Your task to perform on an android device: turn off priority inbox in the gmail app Image 0: 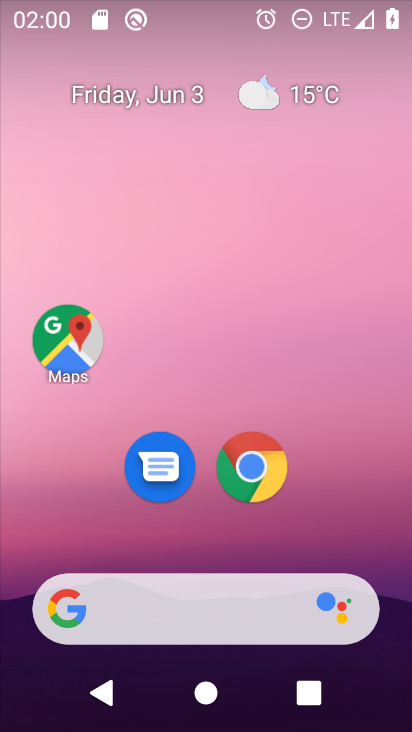
Step 0: drag from (396, 629) to (335, 18)
Your task to perform on an android device: turn off priority inbox in the gmail app Image 1: 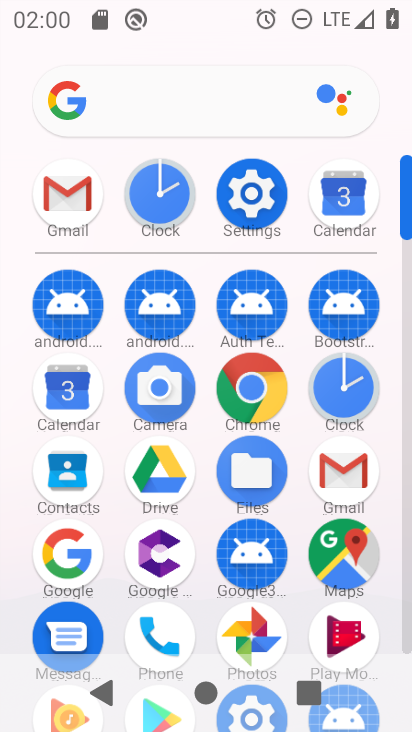
Step 1: click (409, 611)
Your task to perform on an android device: turn off priority inbox in the gmail app Image 2: 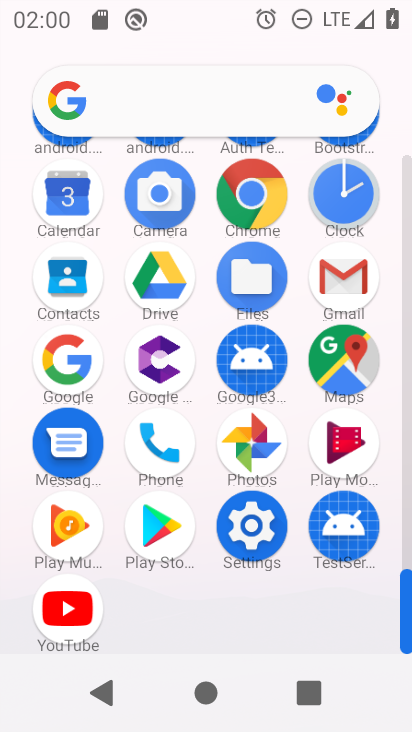
Step 2: click (340, 275)
Your task to perform on an android device: turn off priority inbox in the gmail app Image 3: 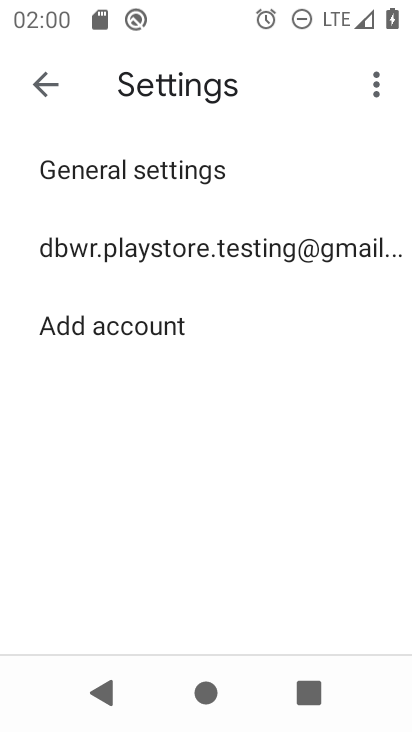
Step 3: click (144, 241)
Your task to perform on an android device: turn off priority inbox in the gmail app Image 4: 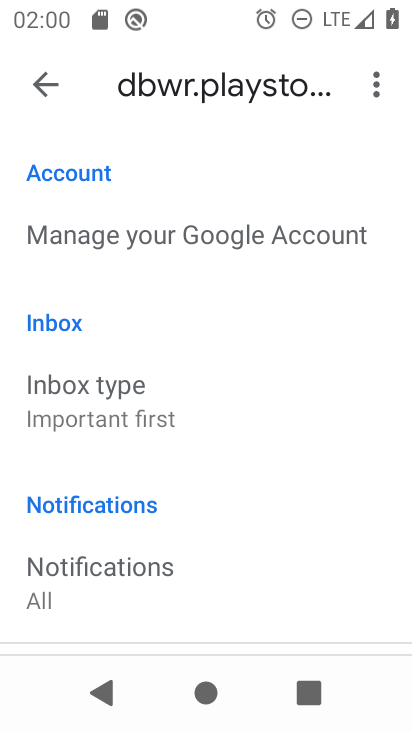
Step 4: drag from (232, 522) to (238, 178)
Your task to perform on an android device: turn off priority inbox in the gmail app Image 5: 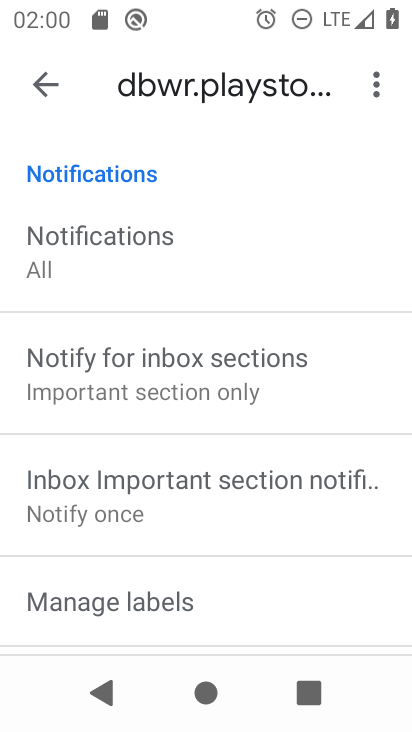
Step 5: drag from (277, 504) to (270, 471)
Your task to perform on an android device: turn off priority inbox in the gmail app Image 6: 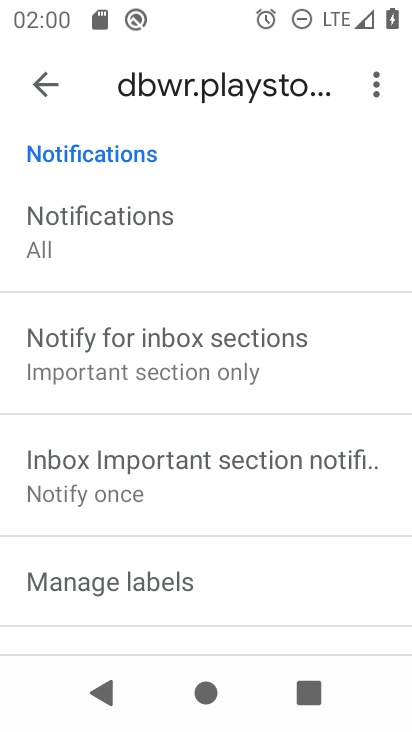
Step 6: drag from (258, 212) to (262, 528)
Your task to perform on an android device: turn off priority inbox in the gmail app Image 7: 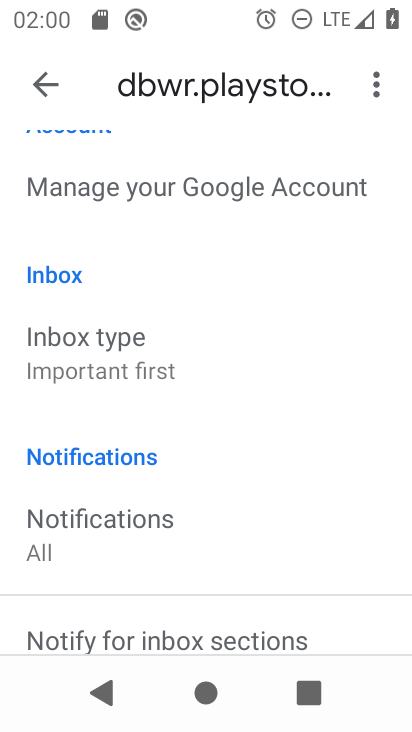
Step 7: click (62, 337)
Your task to perform on an android device: turn off priority inbox in the gmail app Image 8: 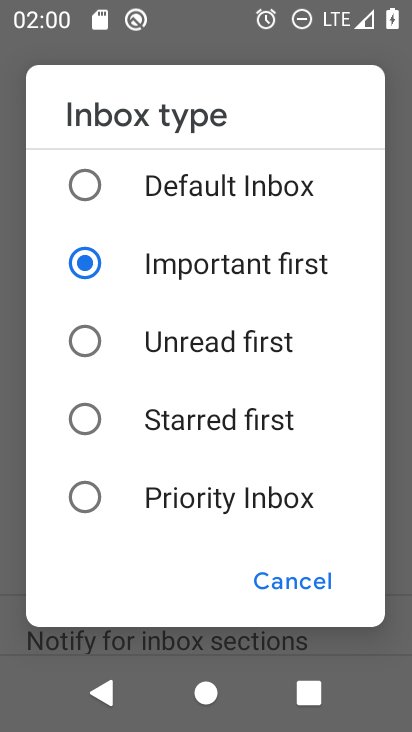
Step 8: task complete